Your task to perform on an android device: turn off sleep mode Image 0: 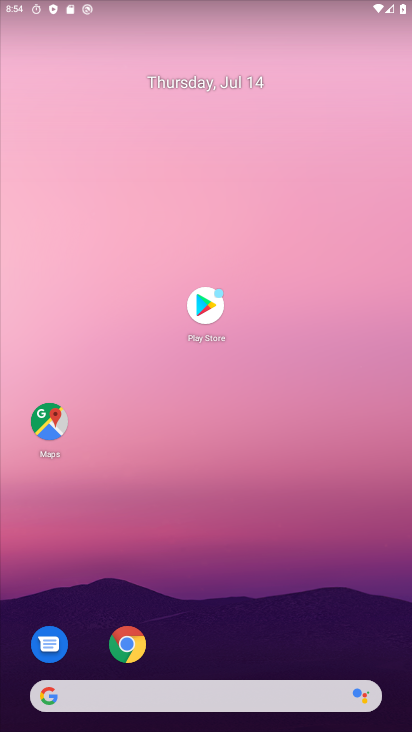
Step 0: drag from (194, 619) to (196, 161)
Your task to perform on an android device: turn off sleep mode Image 1: 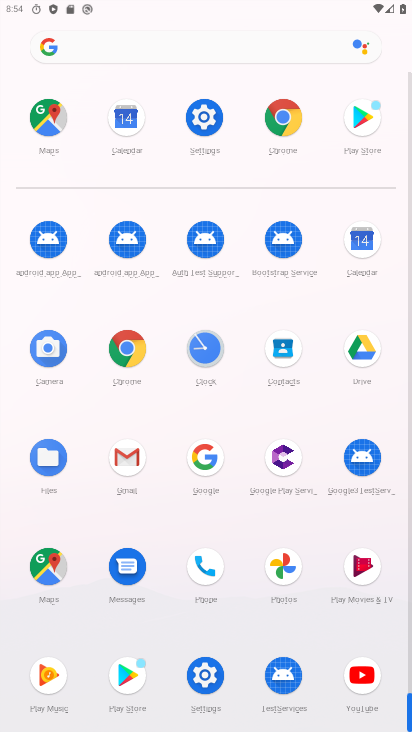
Step 1: click (209, 678)
Your task to perform on an android device: turn off sleep mode Image 2: 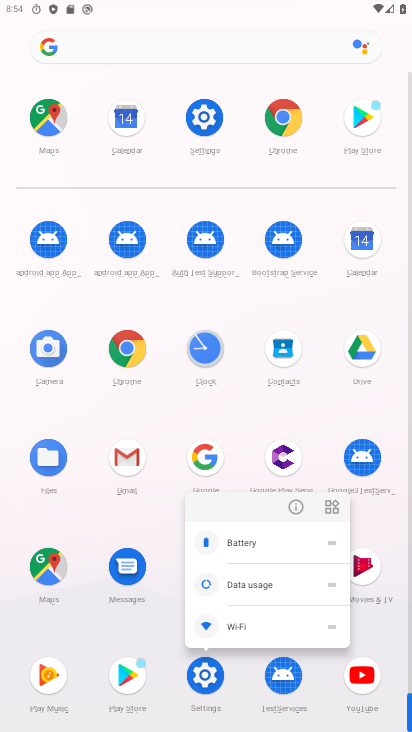
Step 2: click (296, 498)
Your task to perform on an android device: turn off sleep mode Image 3: 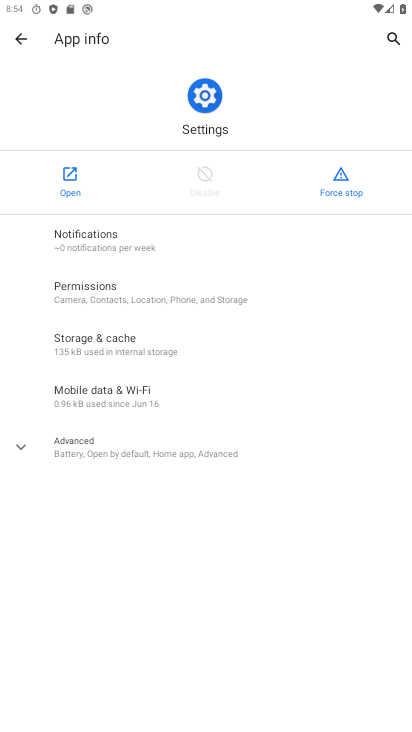
Step 3: click (69, 174)
Your task to perform on an android device: turn off sleep mode Image 4: 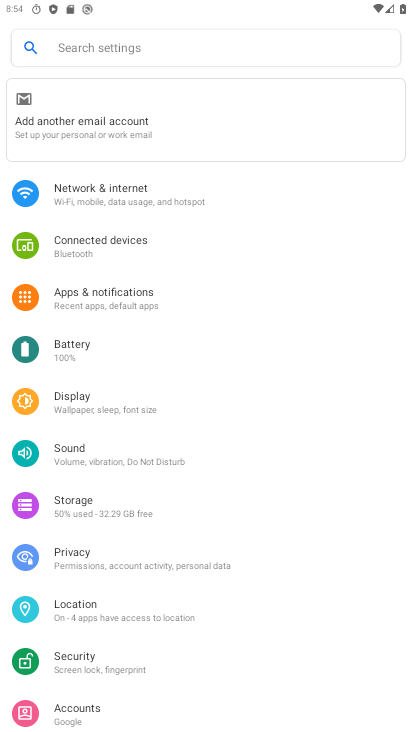
Step 4: click (107, 394)
Your task to perform on an android device: turn off sleep mode Image 5: 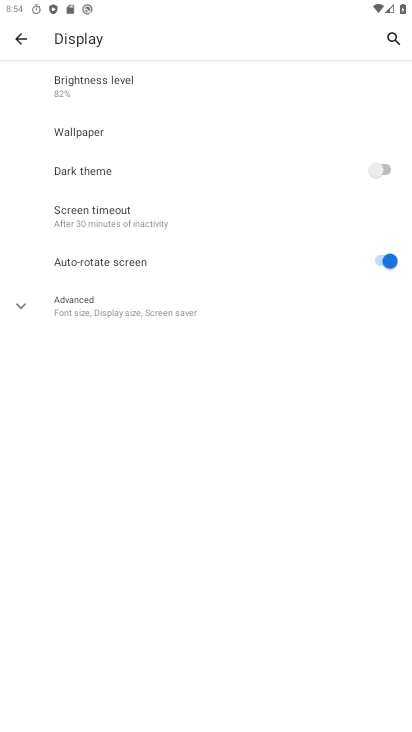
Step 5: click (127, 220)
Your task to perform on an android device: turn off sleep mode Image 6: 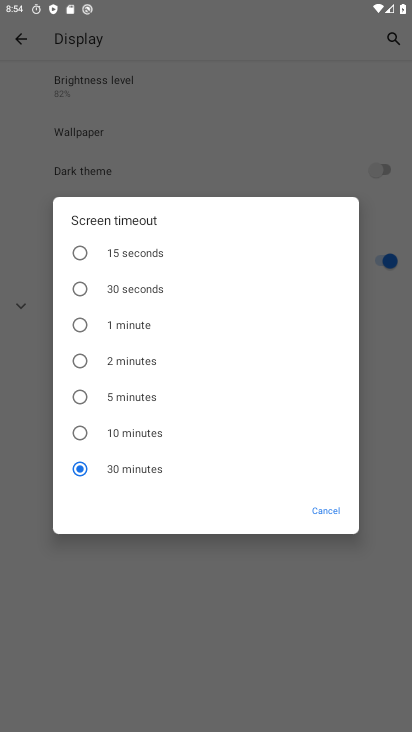
Step 6: task complete